Your task to perform on an android device: set the stopwatch Image 0: 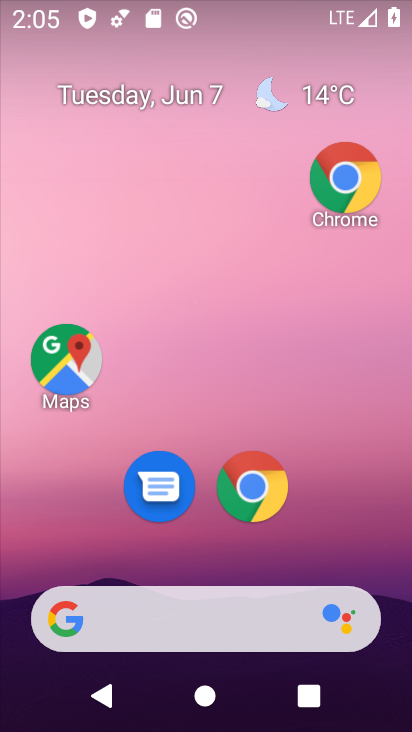
Step 0: drag from (76, 544) to (162, 148)
Your task to perform on an android device: set the stopwatch Image 1: 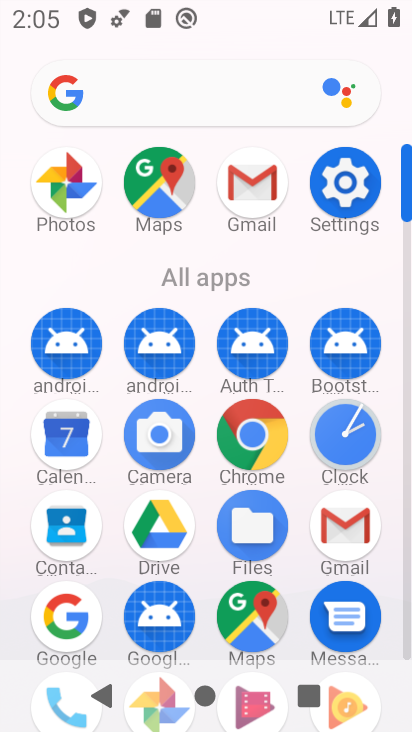
Step 1: click (335, 448)
Your task to perform on an android device: set the stopwatch Image 2: 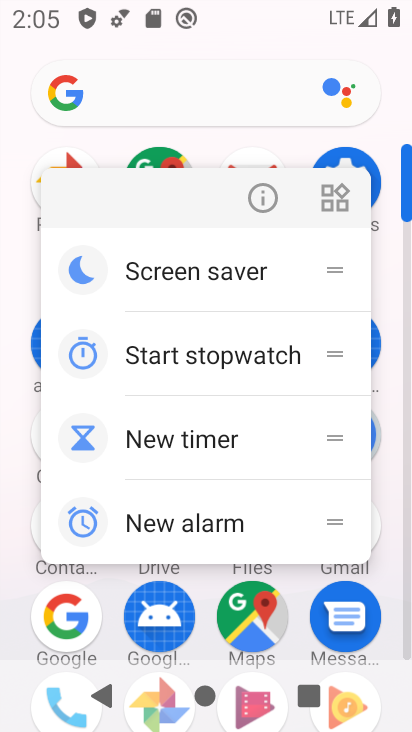
Step 2: press back button
Your task to perform on an android device: set the stopwatch Image 3: 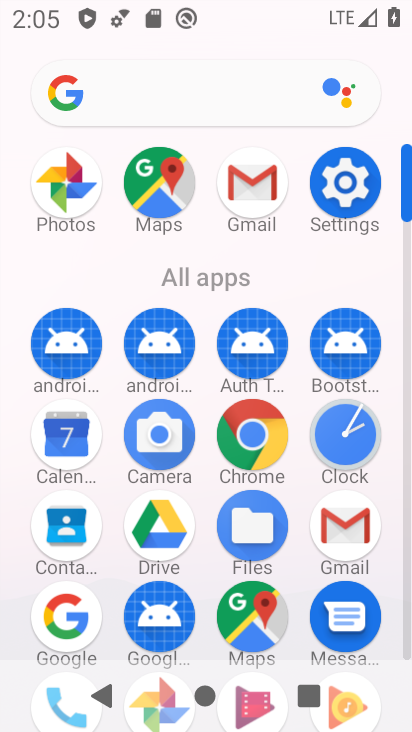
Step 3: click (362, 444)
Your task to perform on an android device: set the stopwatch Image 4: 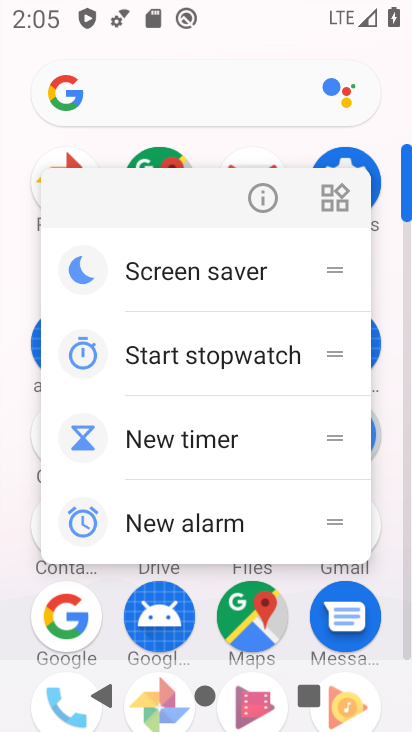
Step 4: press back button
Your task to perform on an android device: set the stopwatch Image 5: 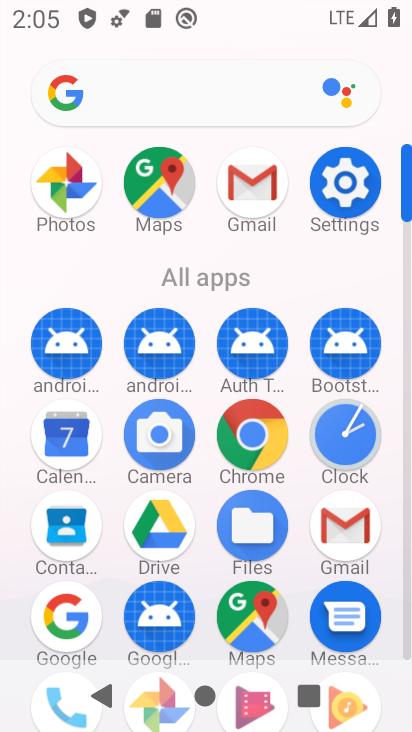
Step 5: click (353, 444)
Your task to perform on an android device: set the stopwatch Image 6: 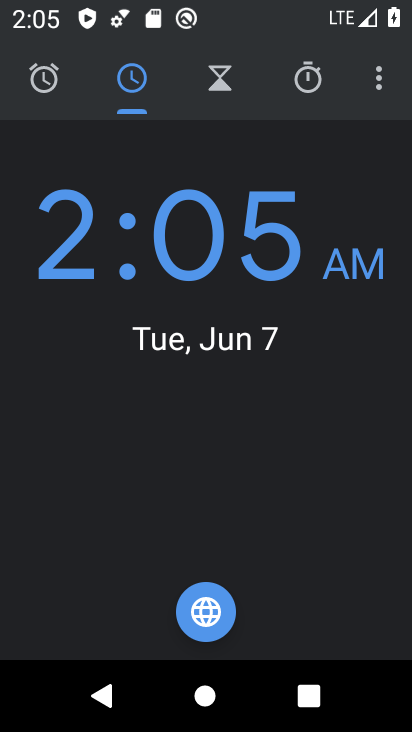
Step 6: click (326, 94)
Your task to perform on an android device: set the stopwatch Image 7: 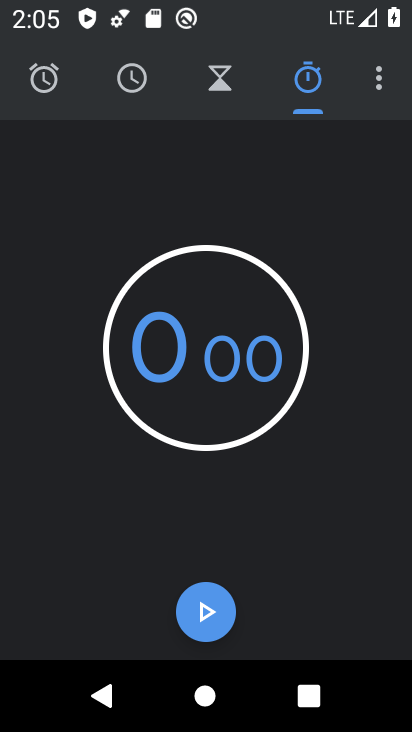
Step 7: click (221, 634)
Your task to perform on an android device: set the stopwatch Image 8: 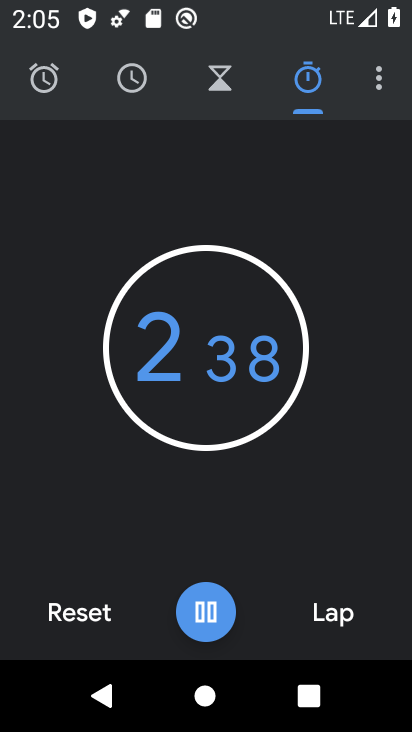
Step 8: task complete